Your task to perform on an android device: Go to Google Image 0: 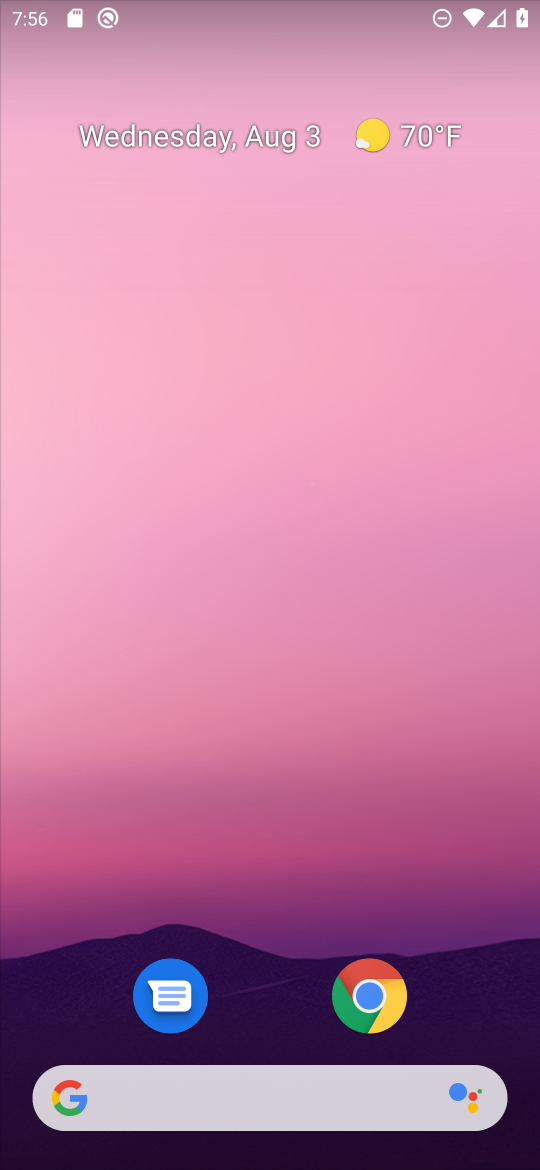
Step 0: click (309, 1107)
Your task to perform on an android device: Go to Google Image 1: 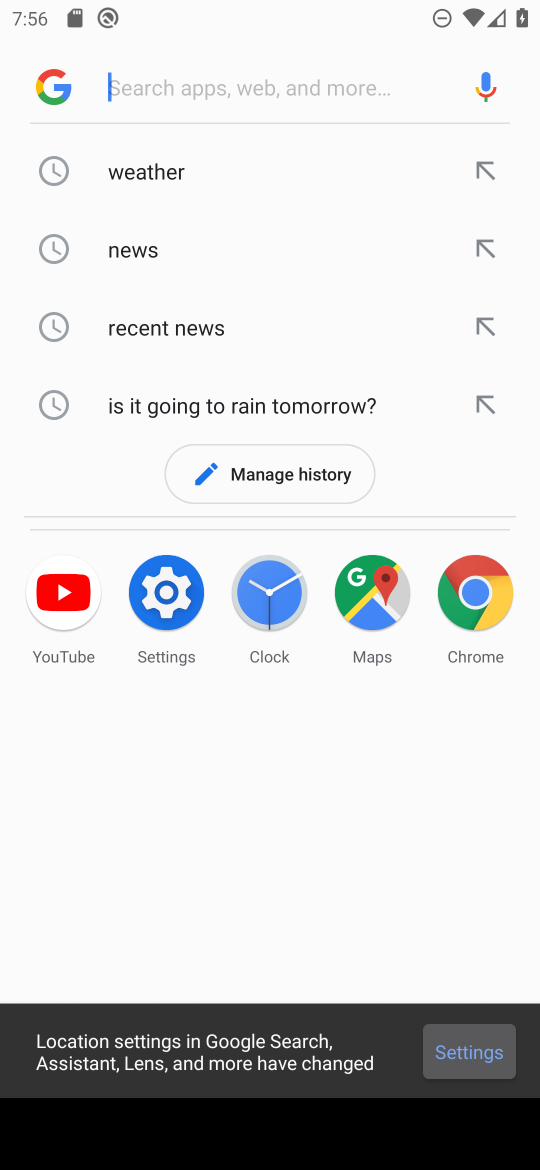
Step 1: click (53, 92)
Your task to perform on an android device: Go to Google Image 2: 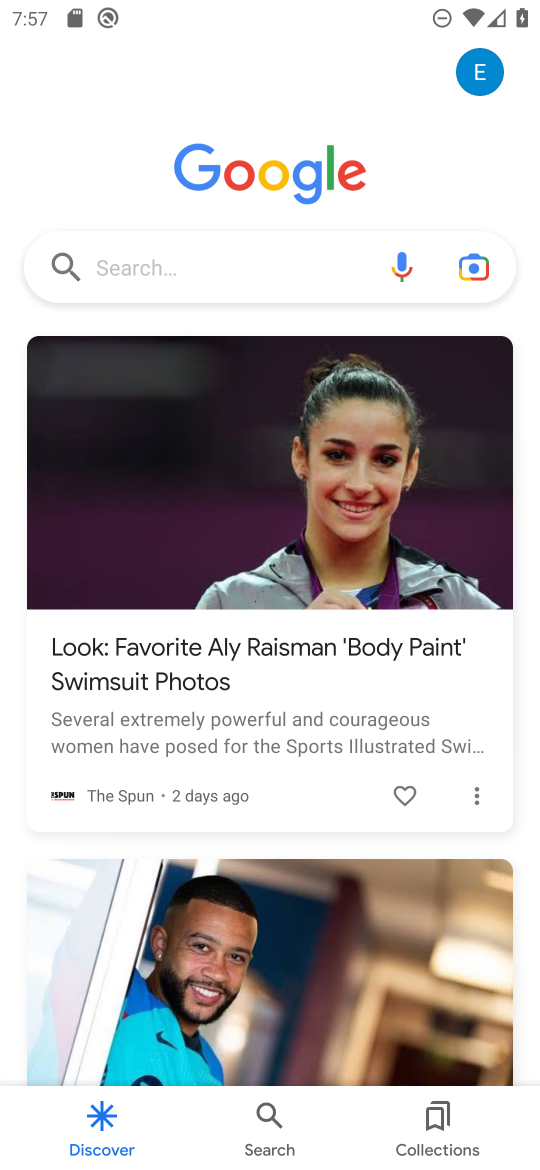
Step 2: task complete